Your task to perform on an android device: Show me productivity apps on the Play Store Image 0: 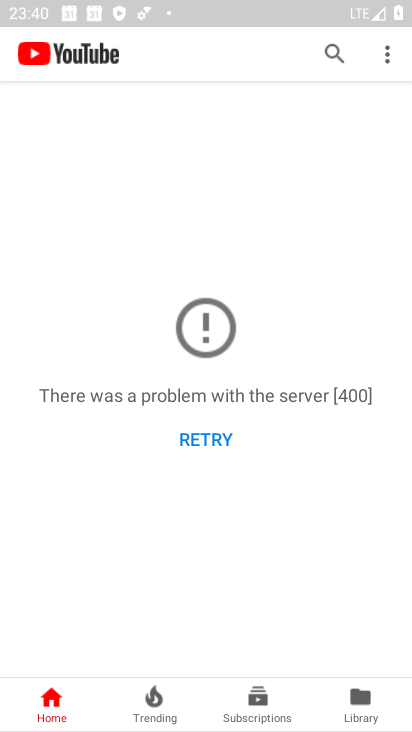
Step 0: press home button
Your task to perform on an android device: Show me productivity apps on the Play Store Image 1: 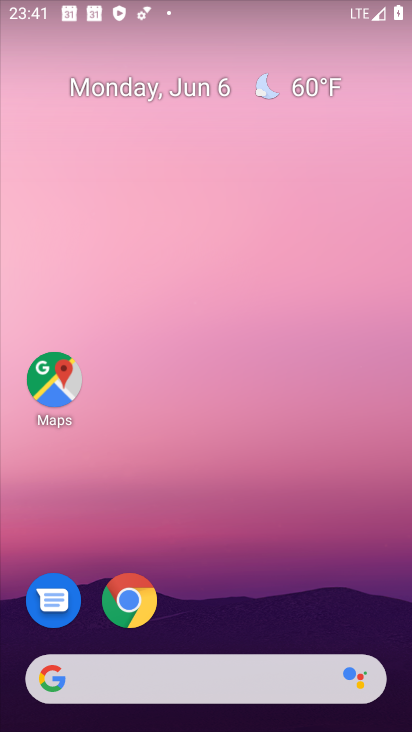
Step 1: drag from (187, 730) to (180, 127)
Your task to perform on an android device: Show me productivity apps on the Play Store Image 2: 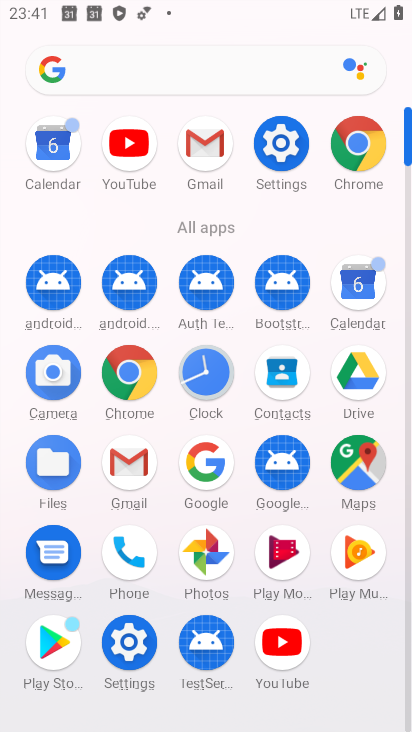
Step 2: click (62, 629)
Your task to perform on an android device: Show me productivity apps on the Play Store Image 3: 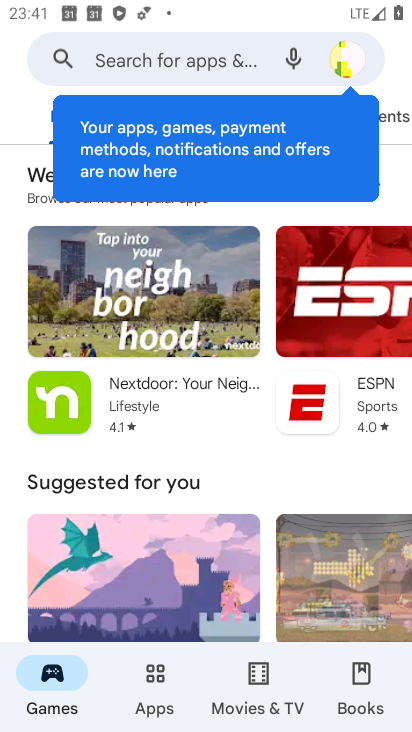
Step 3: click (150, 685)
Your task to perform on an android device: Show me productivity apps on the Play Store Image 4: 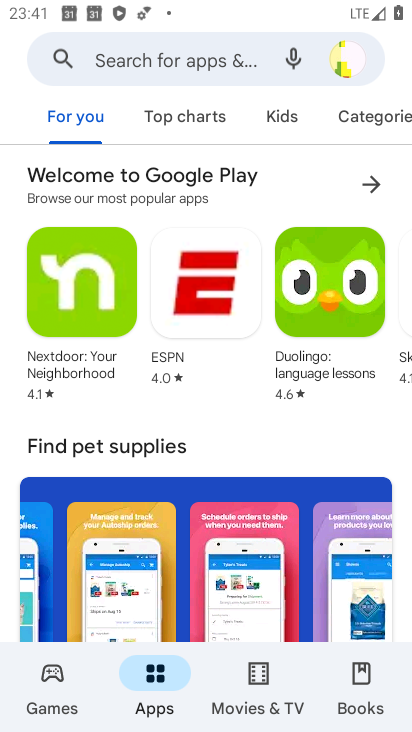
Step 4: click (357, 113)
Your task to perform on an android device: Show me productivity apps on the Play Store Image 5: 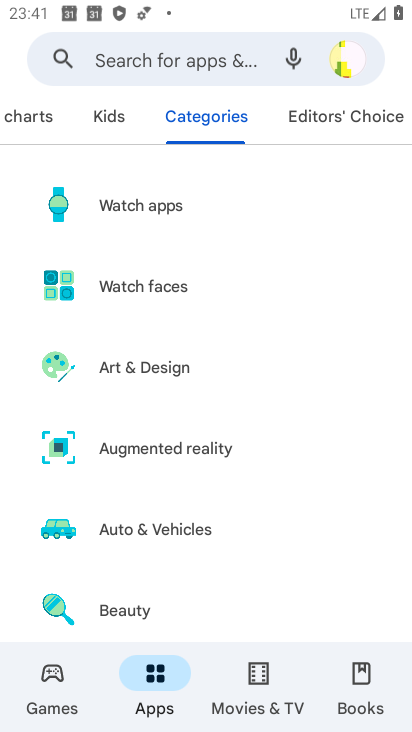
Step 5: drag from (120, 613) to (87, 224)
Your task to perform on an android device: Show me productivity apps on the Play Store Image 6: 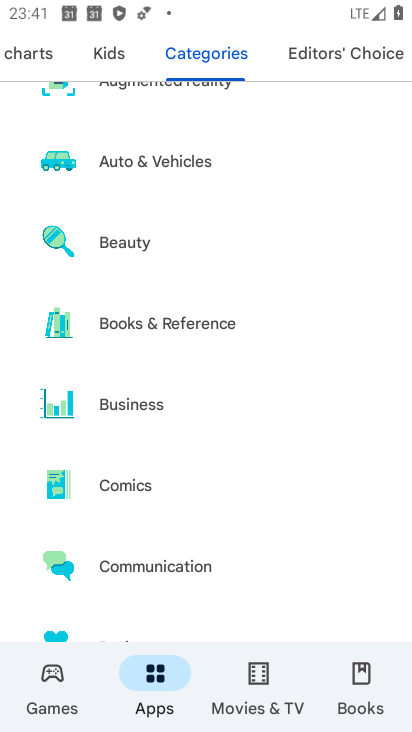
Step 6: drag from (146, 586) to (153, 170)
Your task to perform on an android device: Show me productivity apps on the Play Store Image 7: 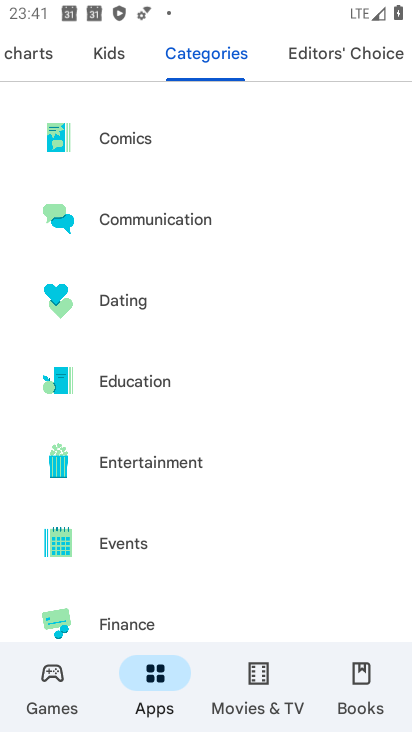
Step 7: drag from (181, 574) to (184, 243)
Your task to perform on an android device: Show me productivity apps on the Play Store Image 8: 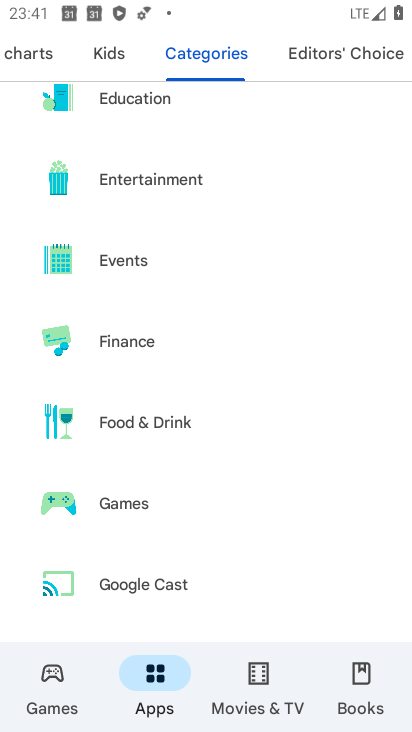
Step 8: drag from (158, 609) to (160, 207)
Your task to perform on an android device: Show me productivity apps on the Play Store Image 9: 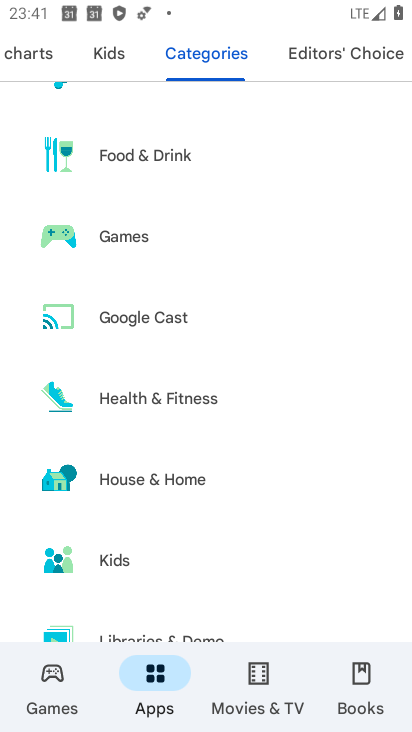
Step 9: drag from (168, 603) to (164, 277)
Your task to perform on an android device: Show me productivity apps on the Play Store Image 10: 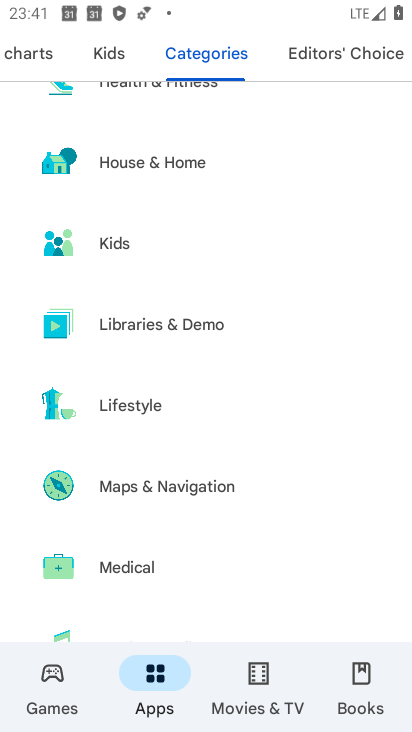
Step 10: drag from (180, 608) to (166, 257)
Your task to perform on an android device: Show me productivity apps on the Play Store Image 11: 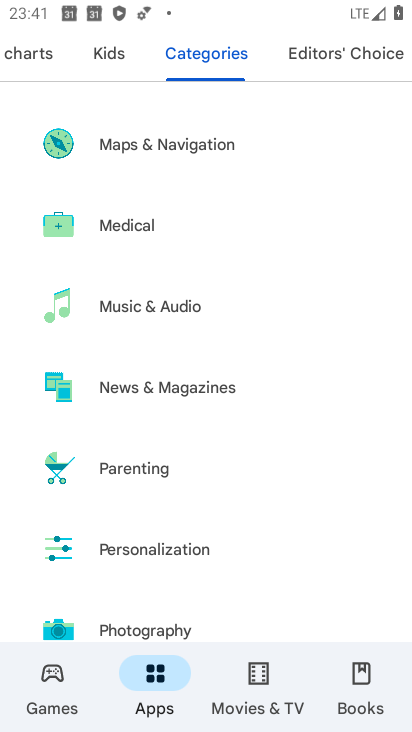
Step 11: drag from (186, 607) to (189, 276)
Your task to perform on an android device: Show me productivity apps on the Play Store Image 12: 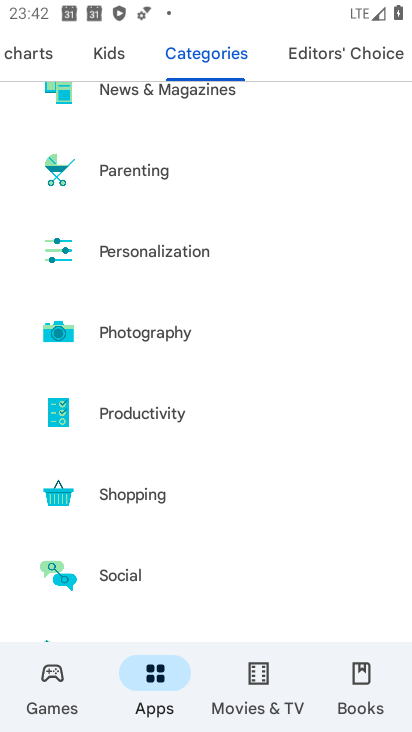
Step 12: click (135, 413)
Your task to perform on an android device: Show me productivity apps on the Play Store Image 13: 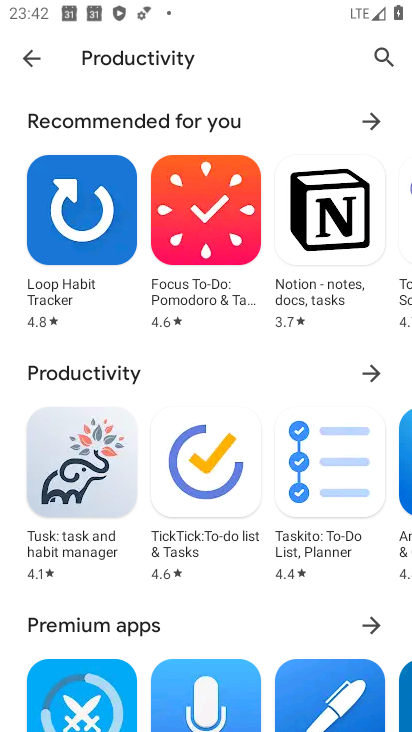
Step 13: task complete